Your task to perform on an android device: check the backup settings in the google photos Image 0: 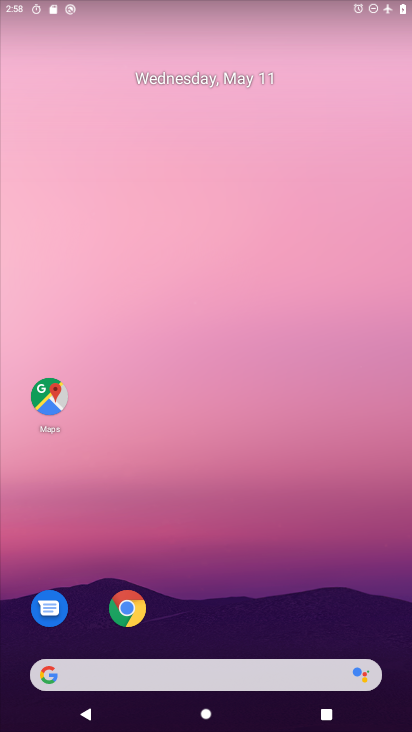
Step 0: drag from (226, 684) to (230, 180)
Your task to perform on an android device: check the backup settings in the google photos Image 1: 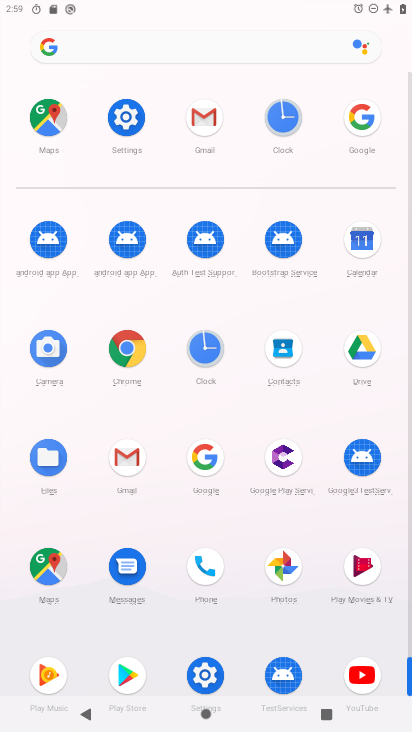
Step 1: click (278, 589)
Your task to perform on an android device: check the backup settings in the google photos Image 2: 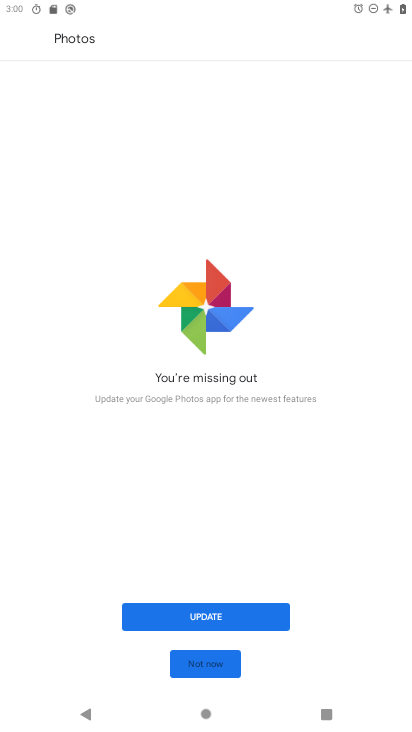
Step 2: click (224, 674)
Your task to perform on an android device: check the backup settings in the google photos Image 3: 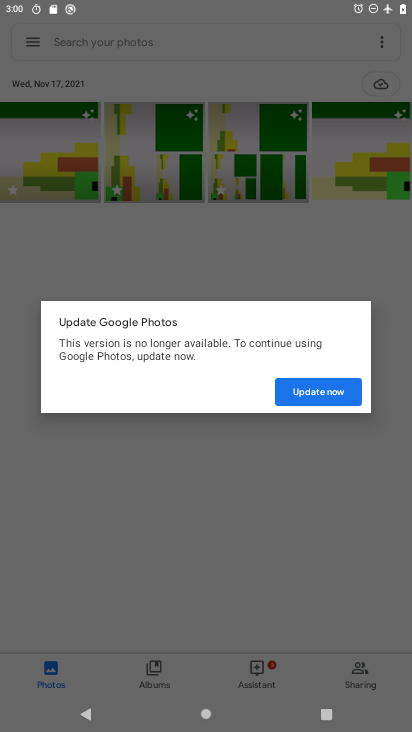
Step 3: task complete